Your task to perform on an android device: Open Android settings Image 0: 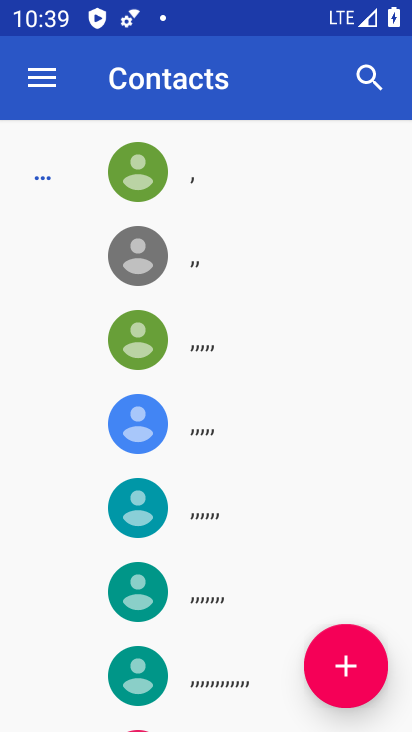
Step 0: press home button
Your task to perform on an android device: Open Android settings Image 1: 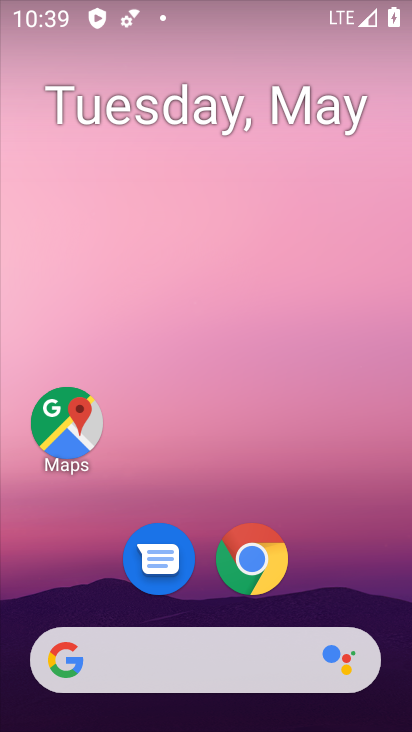
Step 1: drag from (371, 601) to (342, 130)
Your task to perform on an android device: Open Android settings Image 2: 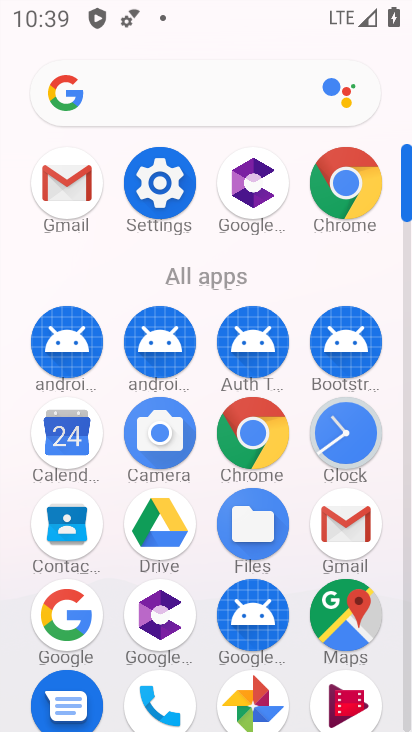
Step 2: click (183, 189)
Your task to perform on an android device: Open Android settings Image 3: 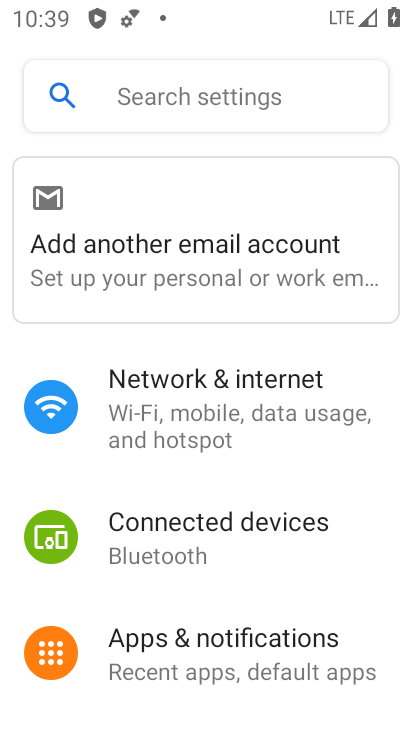
Step 3: task complete